Your task to perform on an android device: Open calendar and show me the second week of next month Image 0: 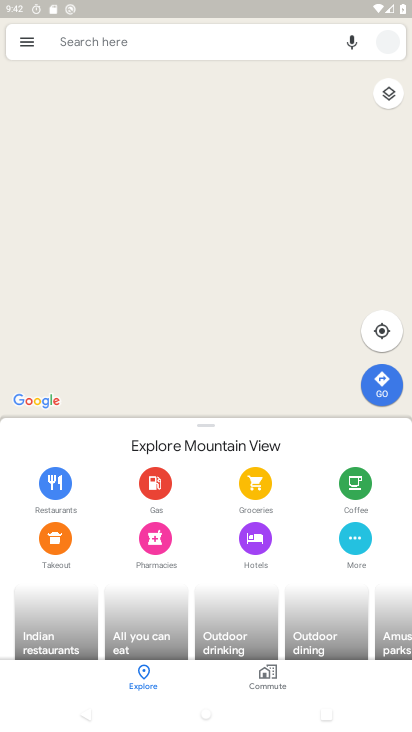
Step 0: press home button
Your task to perform on an android device: Open calendar and show me the second week of next month Image 1: 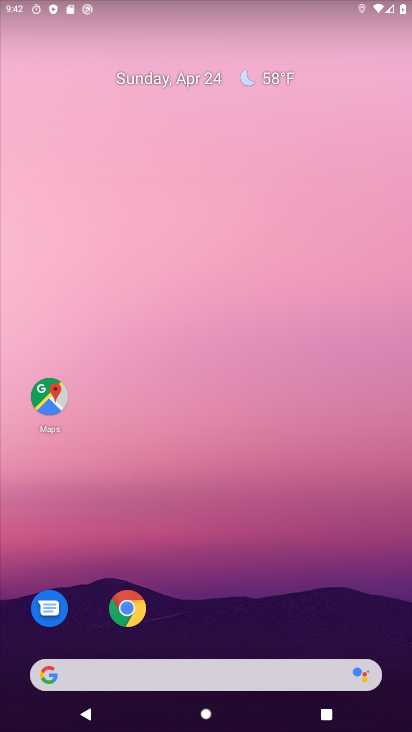
Step 1: drag from (356, 598) to (363, 82)
Your task to perform on an android device: Open calendar and show me the second week of next month Image 2: 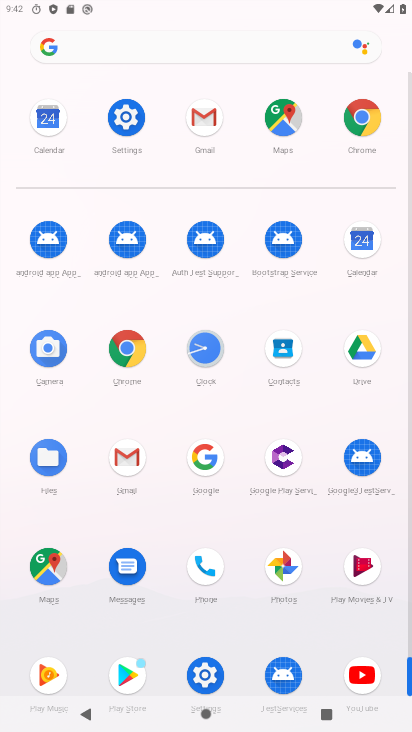
Step 2: click (366, 241)
Your task to perform on an android device: Open calendar and show me the second week of next month Image 3: 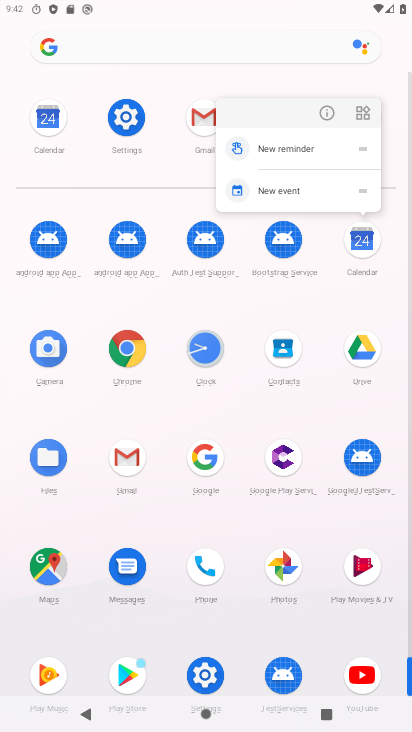
Step 3: click (366, 241)
Your task to perform on an android device: Open calendar and show me the second week of next month Image 4: 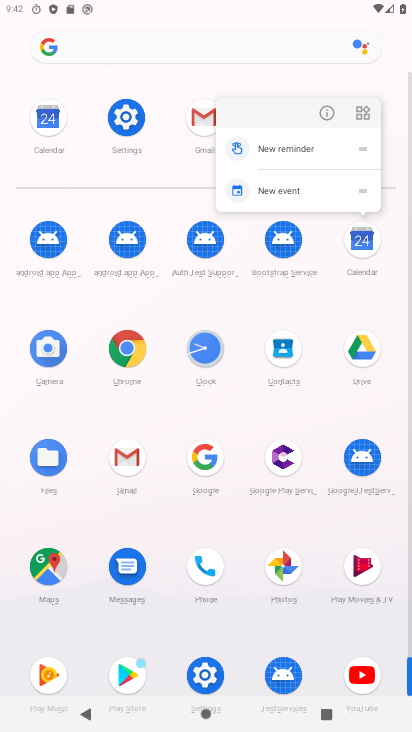
Step 4: click (368, 250)
Your task to perform on an android device: Open calendar and show me the second week of next month Image 5: 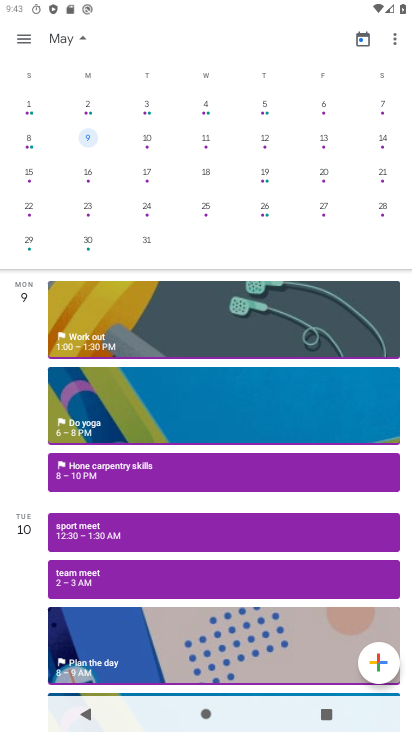
Step 5: task complete